Your task to perform on an android device: Open Google Chrome and click the shortcut for Amazon.com Image 0: 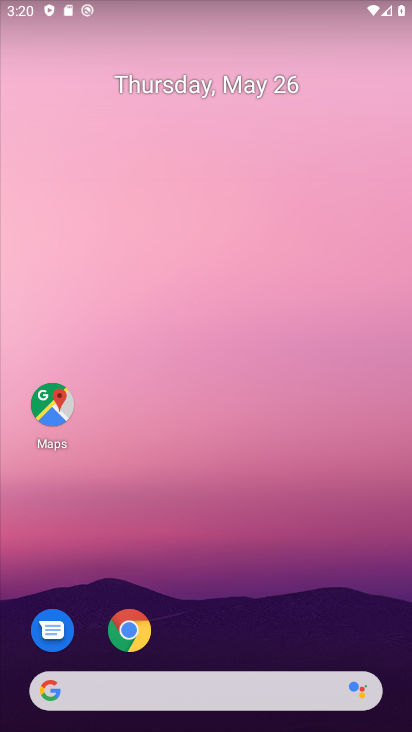
Step 0: click (130, 629)
Your task to perform on an android device: Open Google Chrome and click the shortcut for Amazon.com Image 1: 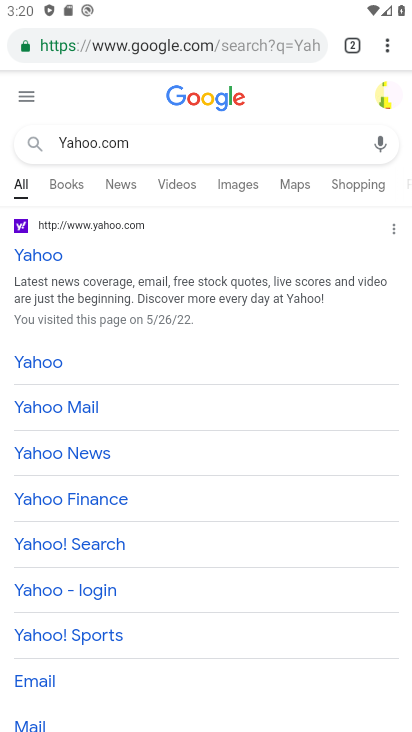
Step 1: click (386, 45)
Your task to perform on an android device: Open Google Chrome and click the shortcut for Amazon.com Image 2: 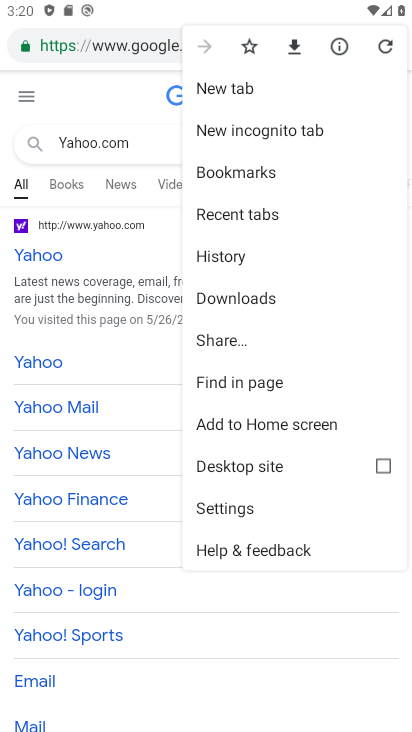
Step 2: click (242, 85)
Your task to perform on an android device: Open Google Chrome and click the shortcut for Amazon.com Image 3: 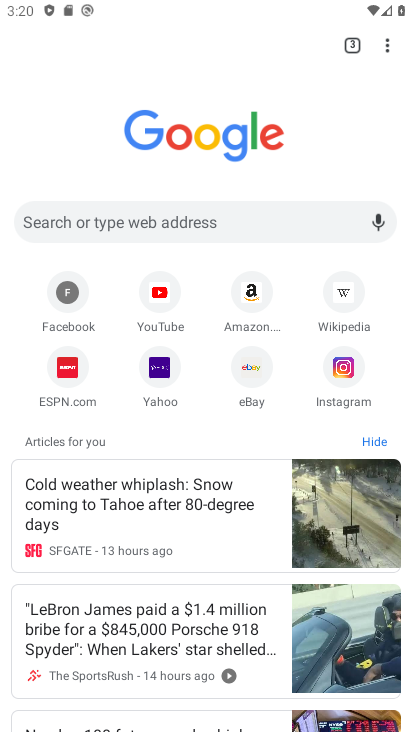
Step 3: click (251, 289)
Your task to perform on an android device: Open Google Chrome and click the shortcut for Amazon.com Image 4: 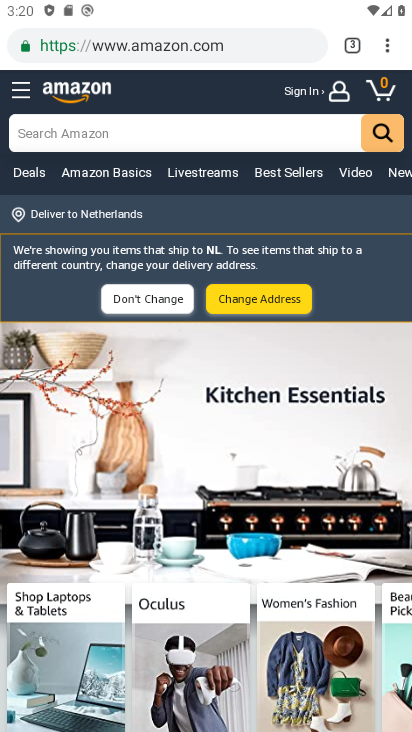
Step 4: click (391, 43)
Your task to perform on an android device: Open Google Chrome and click the shortcut for Amazon.com Image 5: 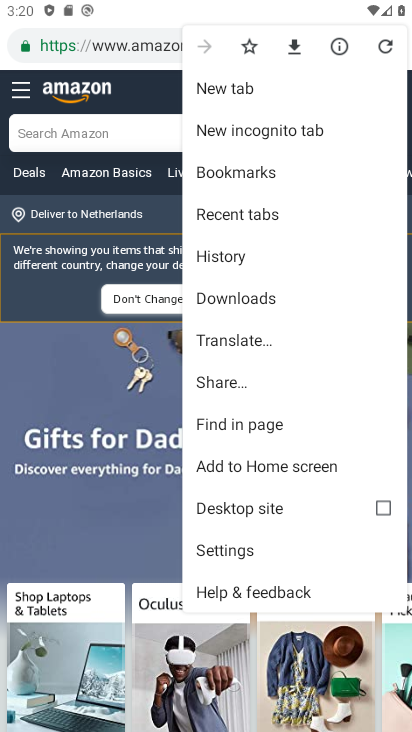
Step 5: click (254, 459)
Your task to perform on an android device: Open Google Chrome and click the shortcut for Amazon.com Image 6: 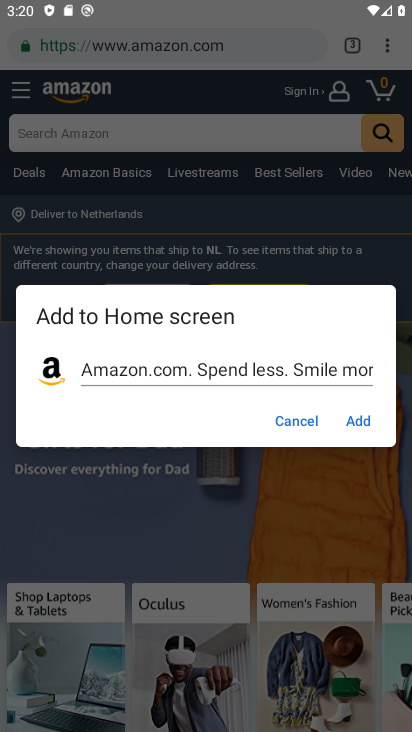
Step 6: click (366, 413)
Your task to perform on an android device: Open Google Chrome and click the shortcut for Amazon.com Image 7: 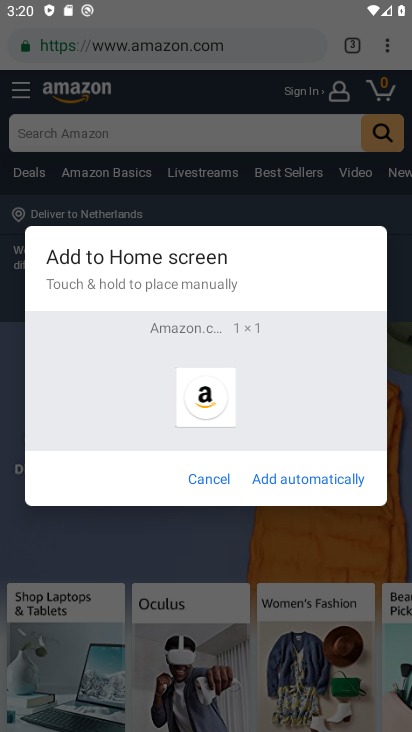
Step 7: click (222, 484)
Your task to perform on an android device: Open Google Chrome and click the shortcut for Amazon.com Image 8: 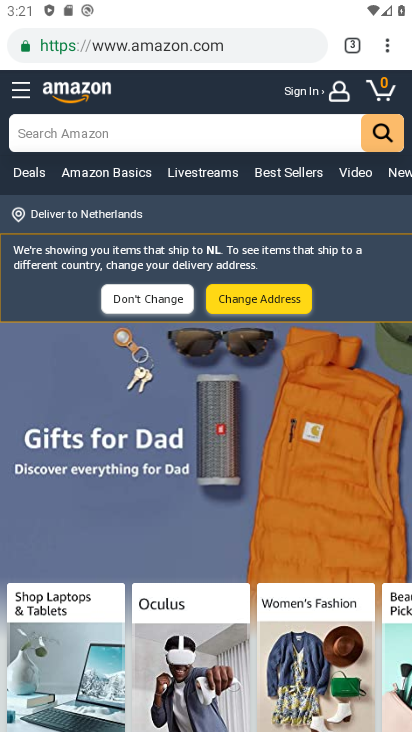
Step 8: task complete